Your task to perform on an android device: Open Google Maps Image 0: 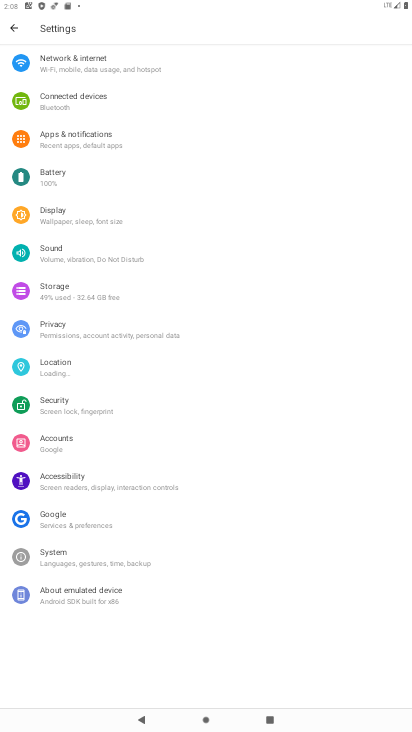
Step 0: press home button
Your task to perform on an android device: Open Google Maps Image 1: 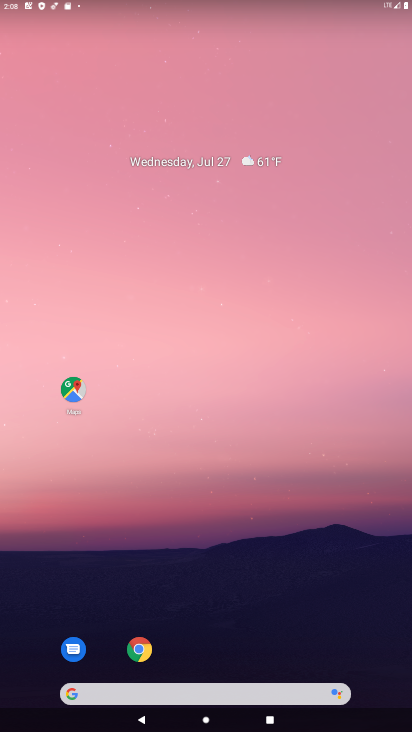
Step 1: click (66, 396)
Your task to perform on an android device: Open Google Maps Image 2: 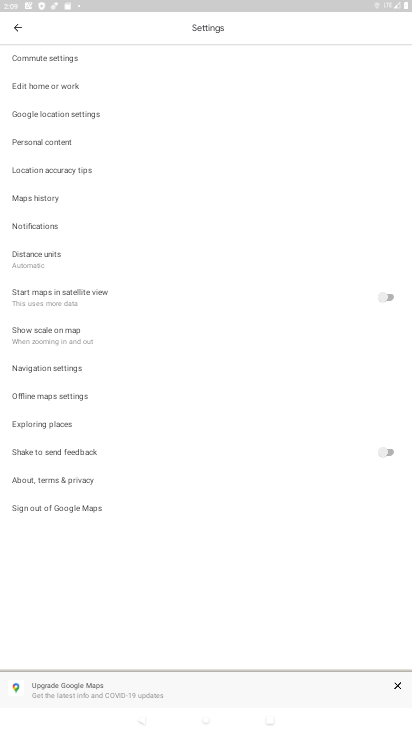
Step 2: task complete